Your task to perform on an android device: turn off notifications in google photos Image 0: 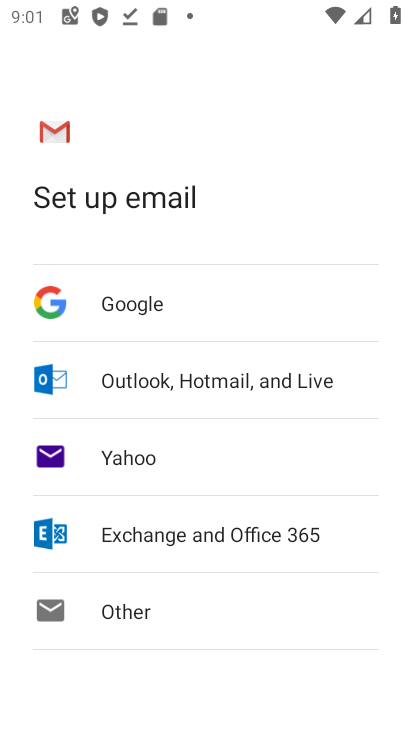
Step 0: press back button
Your task to perform on an android device: turn off notifications in google photos Image 1: 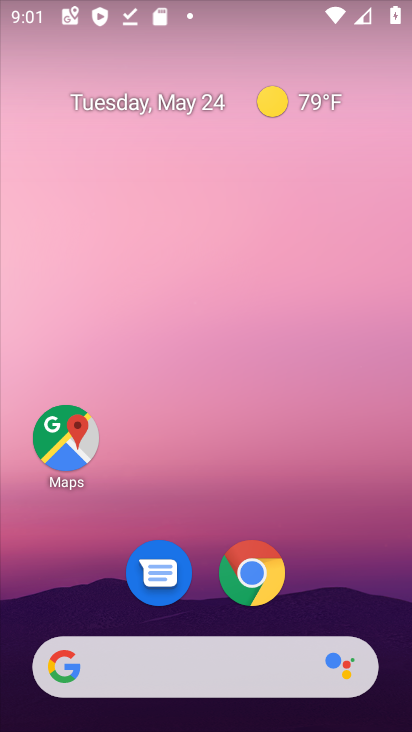
Step 1: drag from (313, 659) to (246, 143)
Your task to perform on an android device: turn off notifications in google photos Image 2: 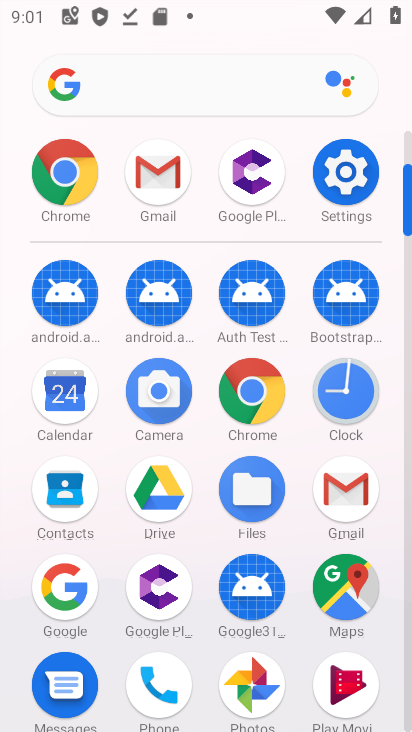
Step 2: click (252, 683)
Your task to perform on an android device: turn off notifications in google photos Image 3: 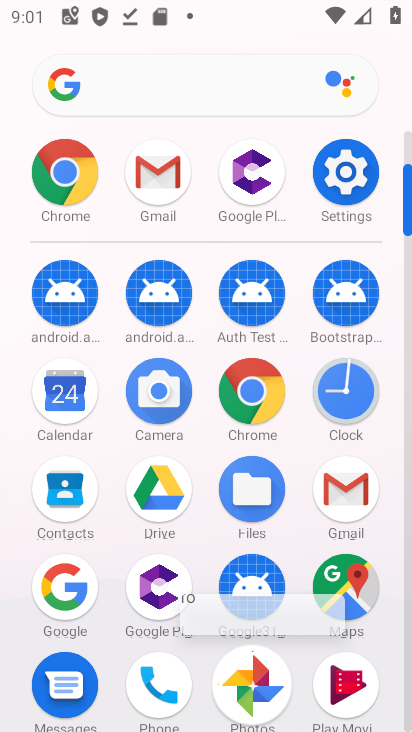
Step 3: click (258, 681)
Your task to perform on an android device: turn off notifications in google photos Image 4: 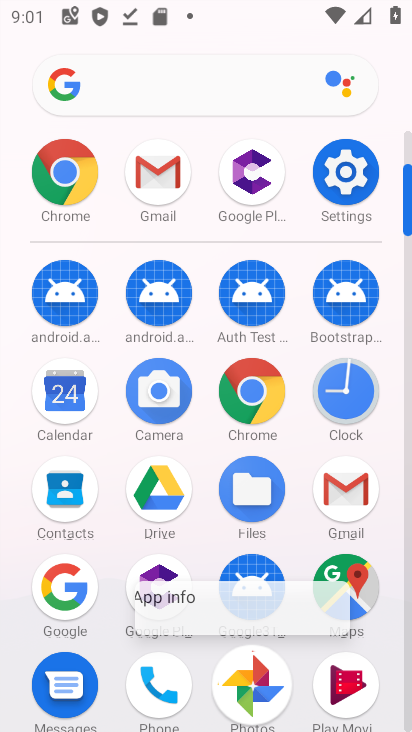
Step 4: click (257, 676)
Your task to perform on an android device: turn off notifications in google photos Image 5: 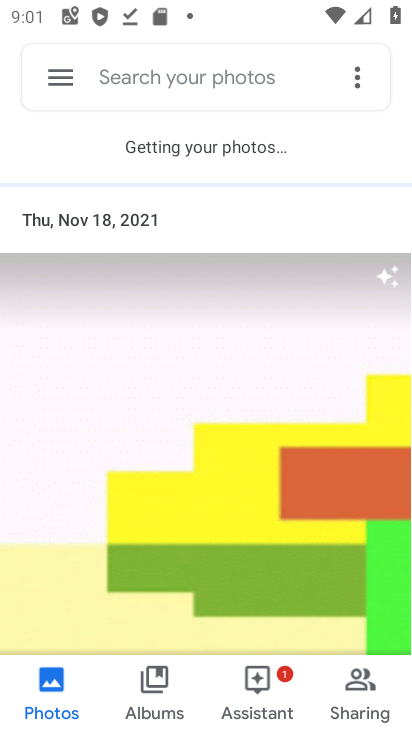
Step 5: drag from (59, 82) to (133, 487)
Your task to perform on an android device: turn off notifications in google photos Image 6: 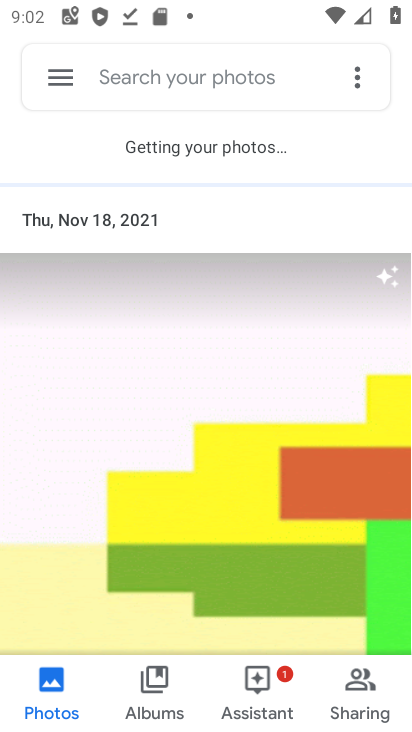
Step 6: click (57, 86)
Your task to perform on an android device: turn off notifications in google photos Image 7: 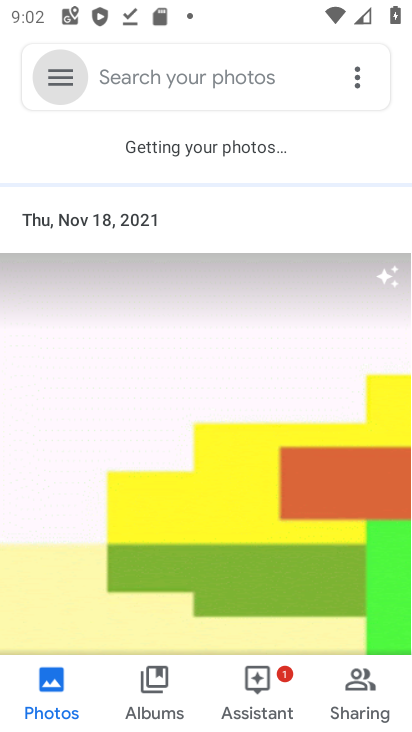
Step 7: click (62, 82)
Your task to perform on an android device: turn off notifications in google photos Image 8: 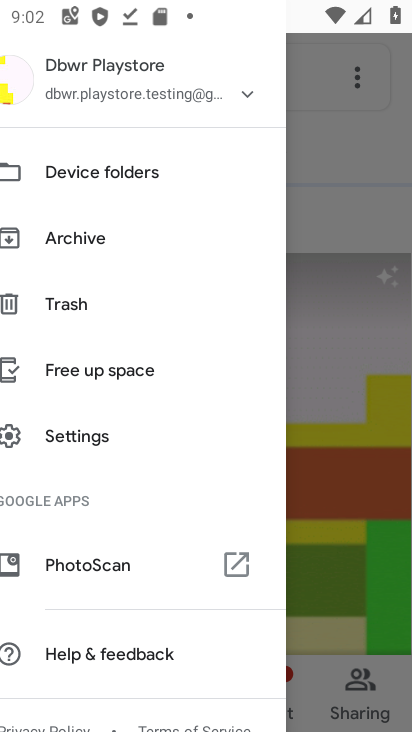
Step 8: click (65, 79)
Your task to perform on an android device: turn off notifications in google photos Image 9: 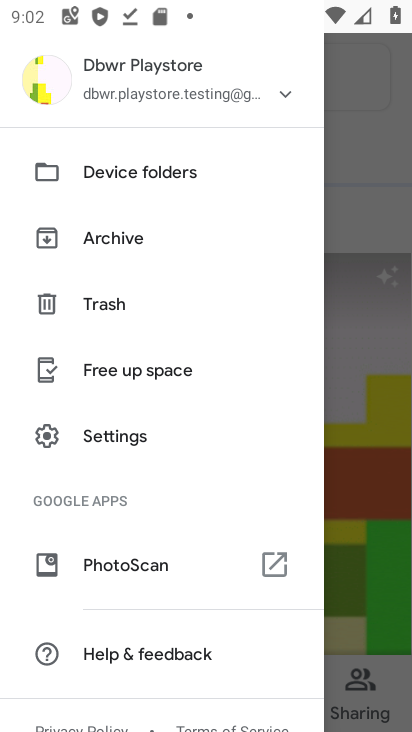
Step 9: drag from (129, 574) to (131, 208)
Your task to perform on an android device: turn off notifications in google photos Image 10: 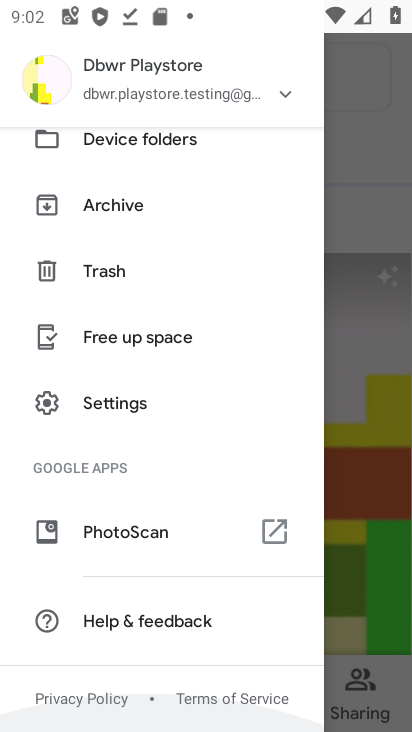
Step 10: drag from (162, 418) to (188, 110)
Your task to perform on an android device: turn off notifications in google photos Image 11: 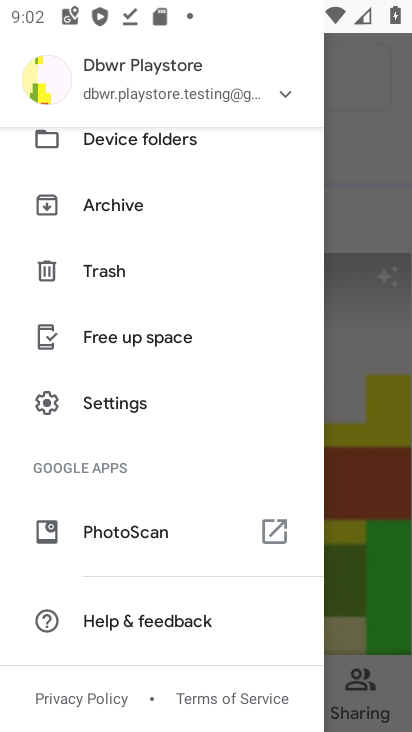
Step 11: click (88, 401)
Your task to perform on an android device: turn off notifications in google photos Image 12: 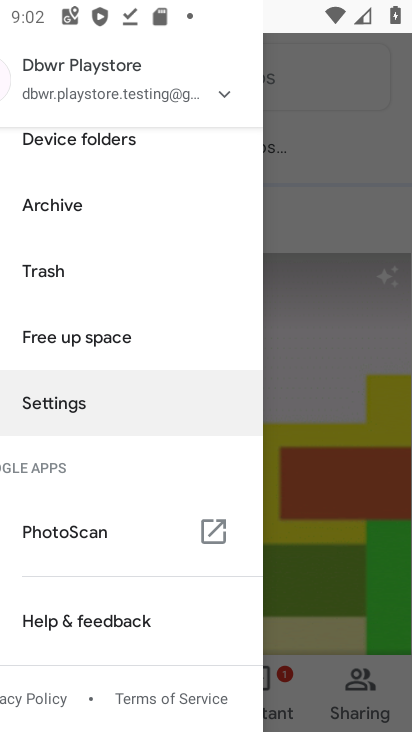
Step 12: click (93, 398)
Your task to perform on an android device: turn off notifications in google photos Image 13: 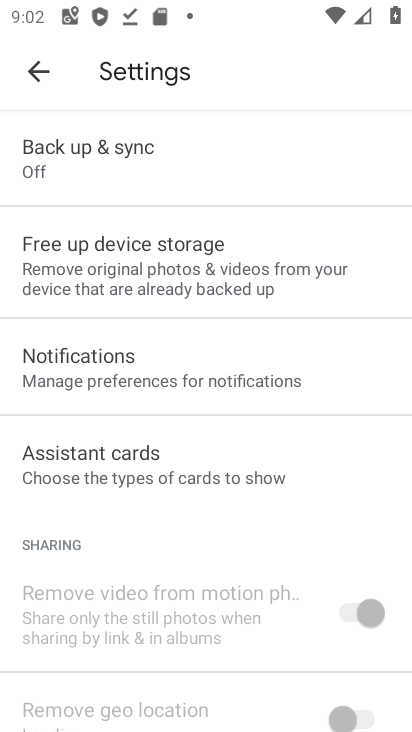
Step 13: click (86, 375)
Your task to perform on an android device: turn off notifications in google photos Image 14: 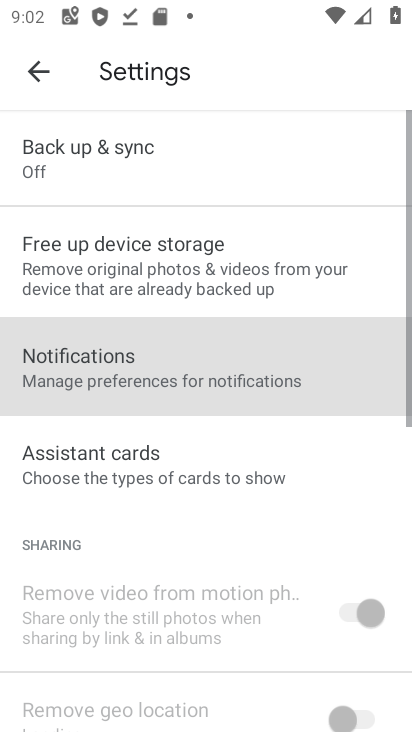
Step 14: click (85, 373)
Your task to perform on an android device: turn off notifications in google photos Image 15: 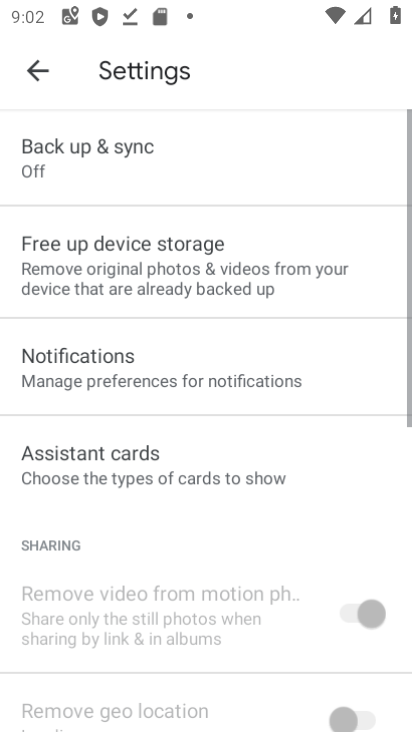
Step 15: click (85, 372)
Your task to perform on an android device: turn off notifications in google photos Image 16: 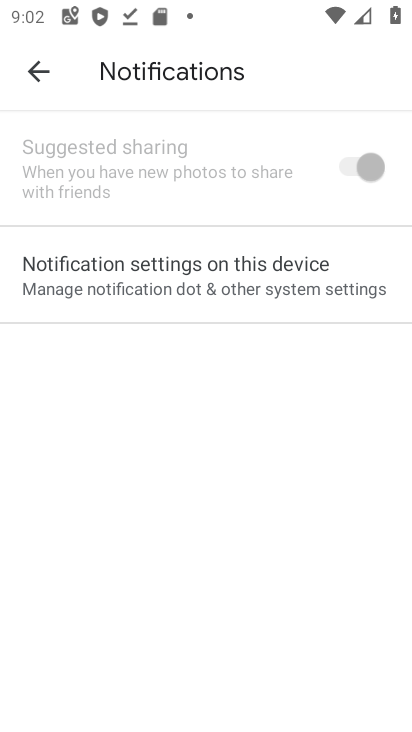
Step 16: click (85, 372)
Your task to perform on an android device: turn off notifications in google photos Image 17: 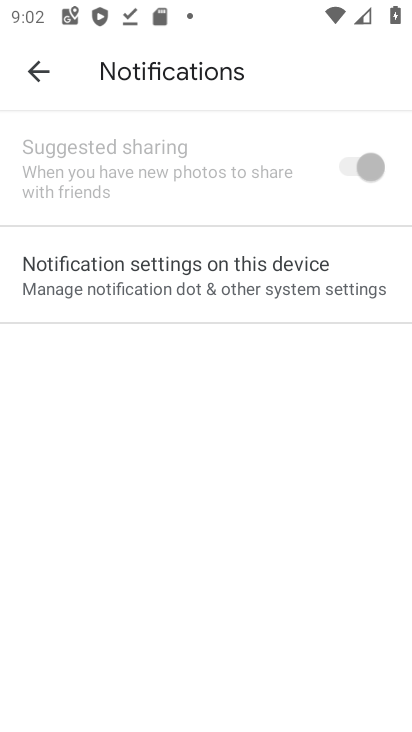
Step 17: click (85, 372)
Your task to perform on an android device: turn off notifications in google photos Image 18: 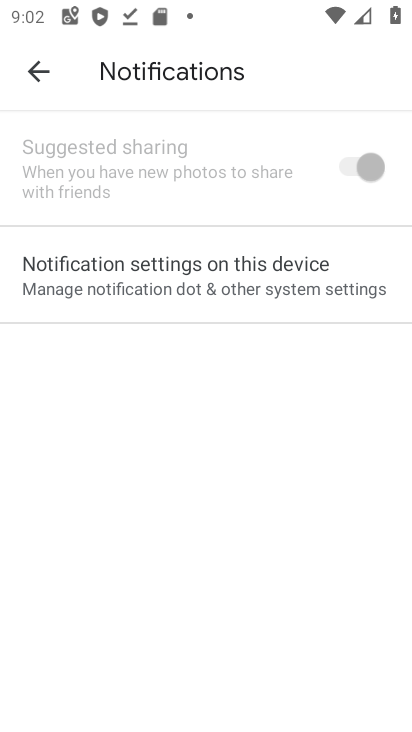
Step 18: click (213, 249)
Your task to perform on an android device: turn off notifications in google photos Image 19: 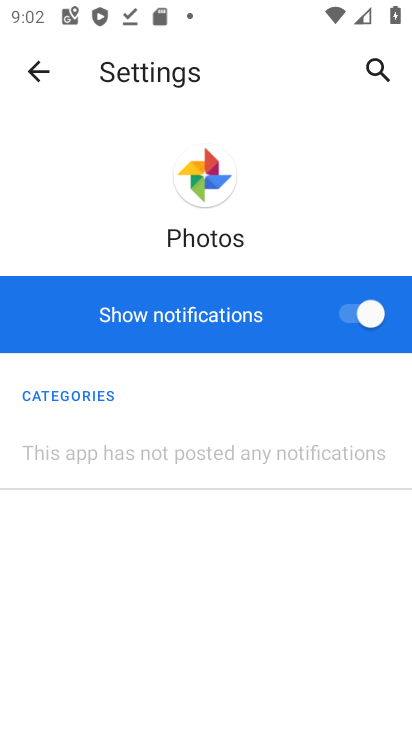
Step 19: click (372, 316)
Your task to perform on an android device: turn off notifications in google photos Image 20: 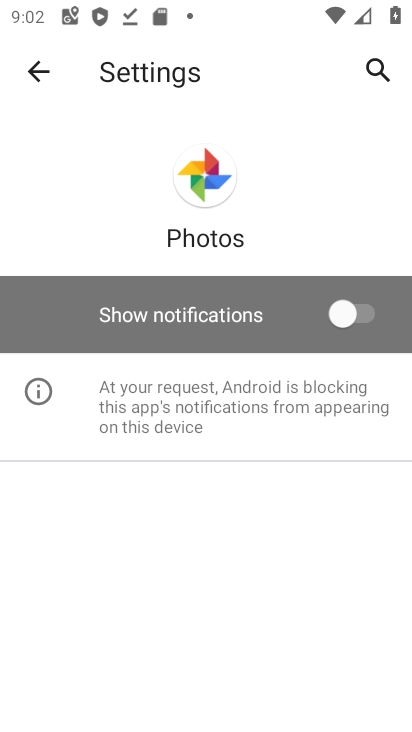
Step 20: task complete